Your task to perform on an android device: open app "LinkedIn" (install if not already installed) Image 0: 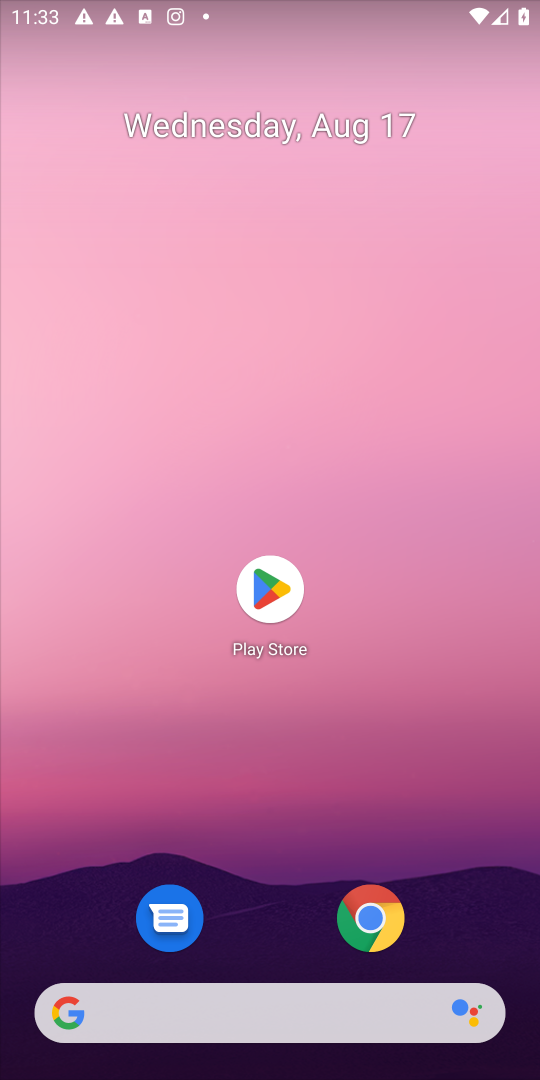
Step 0: click (299, 584)
Your task to perform on an android device: open app "LinkedIn" (install if not already installed) Image 1: 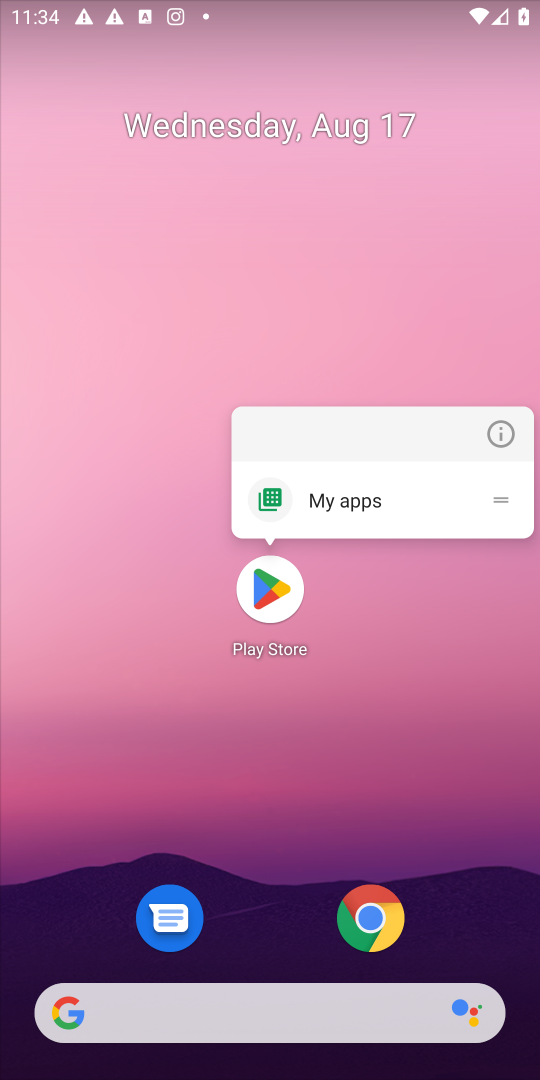
Step 1: click (294, 579)
Your task to perform on an android device: open app "LinkedIn" (install if not already installed) Image 2: 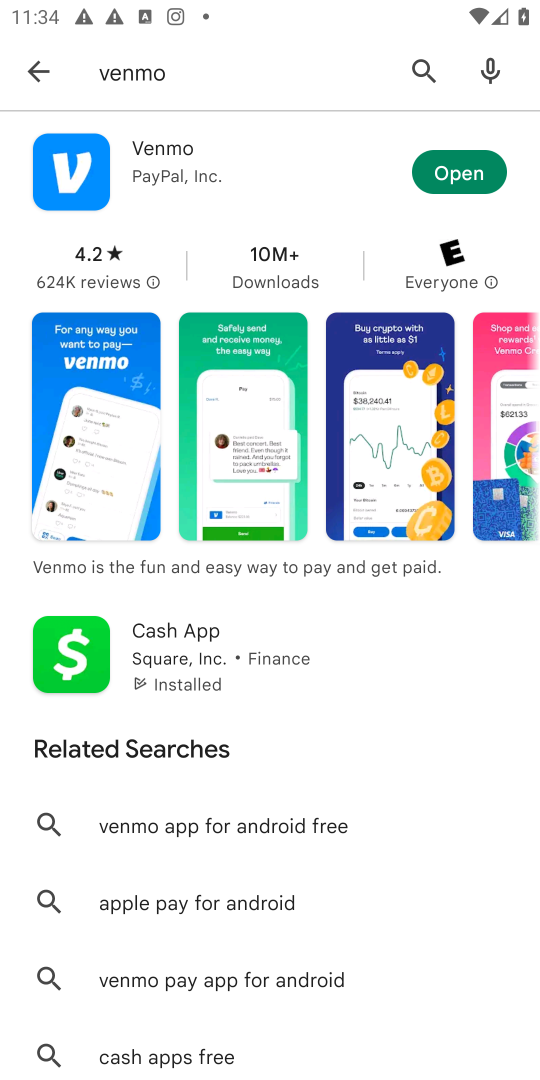
Step 2: click (426, 72)
Your task to perform on an android device: open app "LinkedIn" (install if not already installed) Image 3: 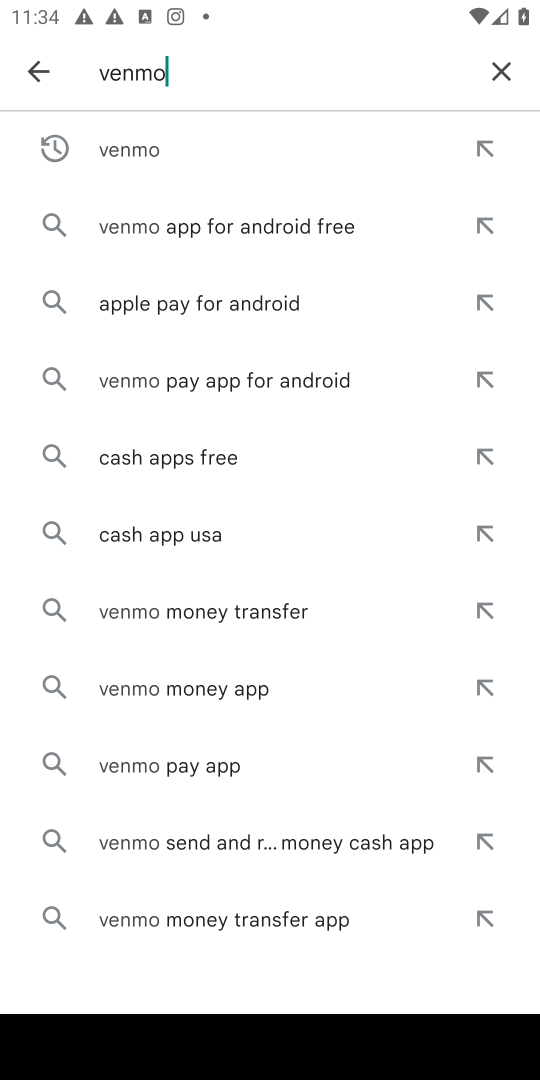
Step 3: click (502, 70)
Your task to perform on an android device: open app "LinkedIn" (install if not already installed) Image 4: 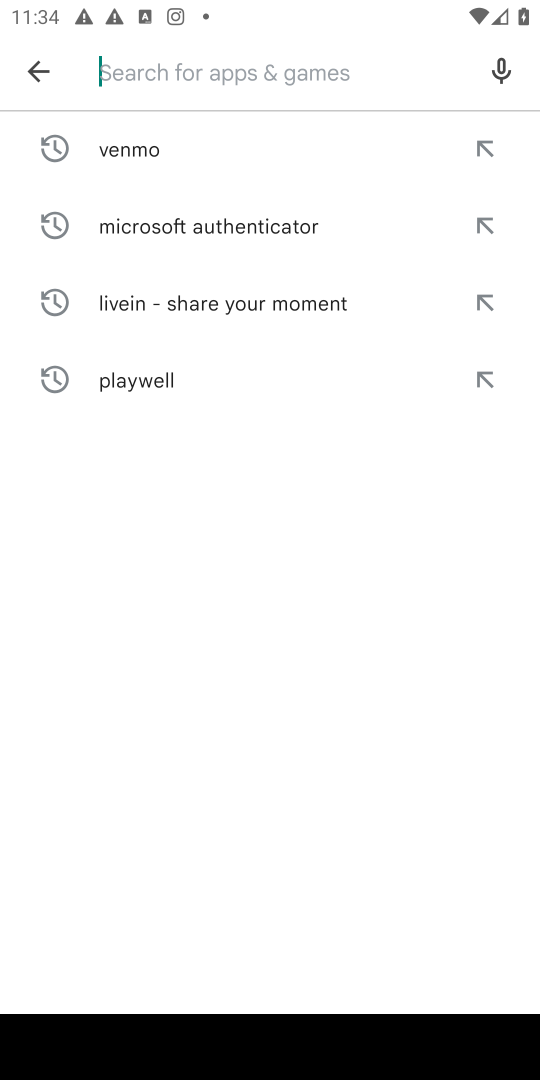
Step 4: type "LinkedIn"
Your task to perform on an android device: open app "LinkedIn" (install if not already installed) Image 5: 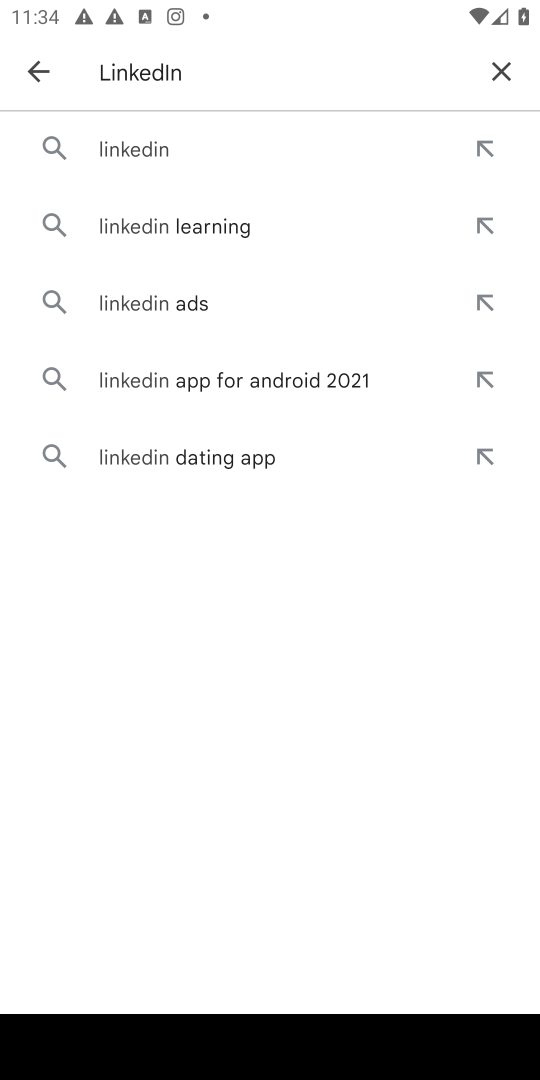
Step 5: click (135, 148)
Your task to perform on an android device: open app "LinkedIn" (install if not already installed) Image 6: 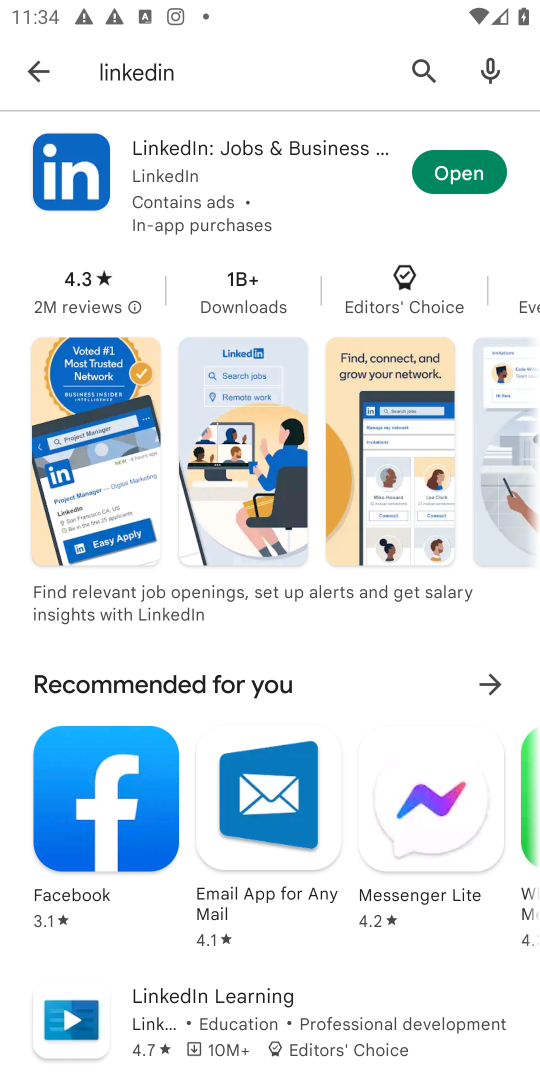
Step 6: click (449, 167)
Your task to perform on an android device: open app "LinkedIn" (install if not already installed) Image 7: 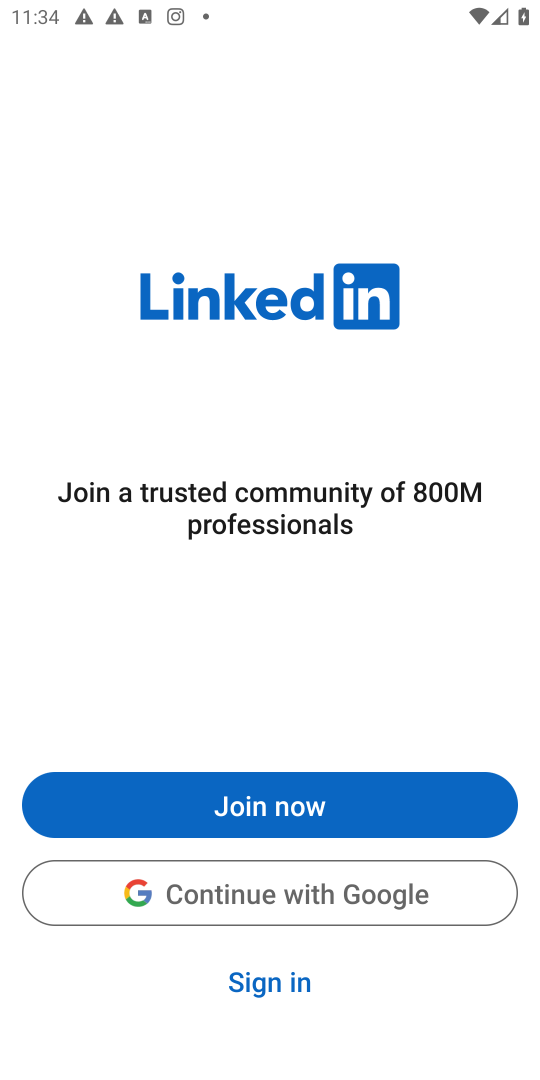
Step 7: task complete